Your task to perform on an android device: Open the web browser Image 0: 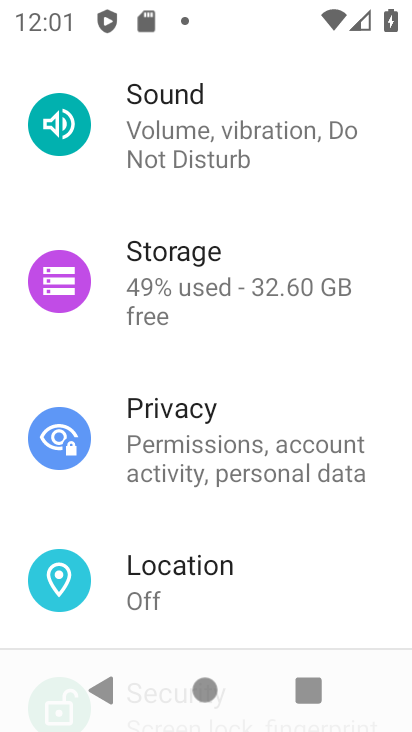
Step 0: press home button
Your task to perform on an android device: Open the web browser Image 1: 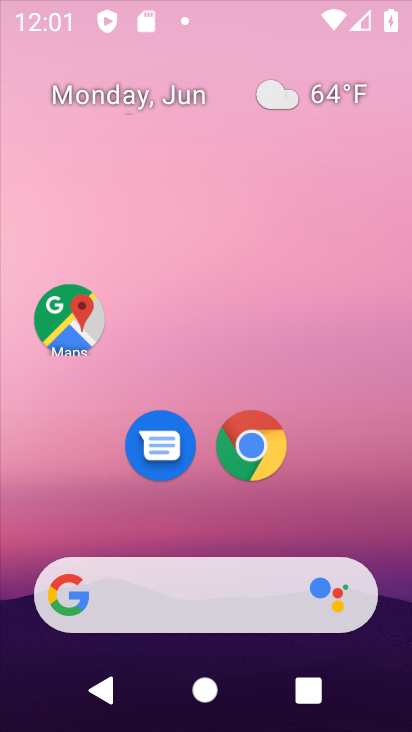
Step 1: drag from (179, 648) to (228, 117)
Your task to perform on an android device: Open the web browser Image 2: 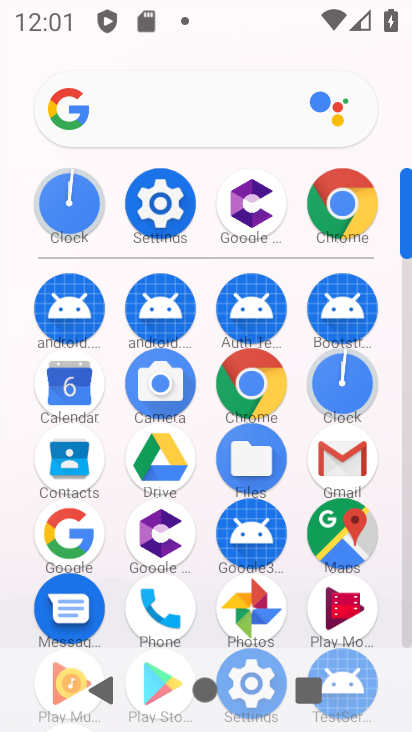
Step 2: click (248, 379)
Your task to perform on an android device: Open the web browser Image 3: 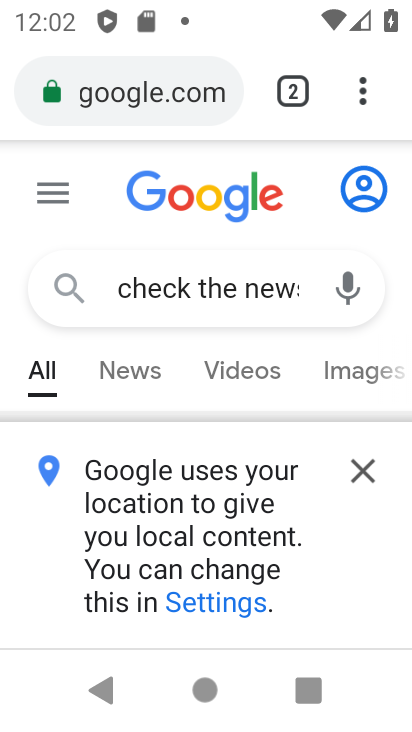
Step 3: task complete